Your task to perform on an android device: toggle translation in the chrome app Image 0: 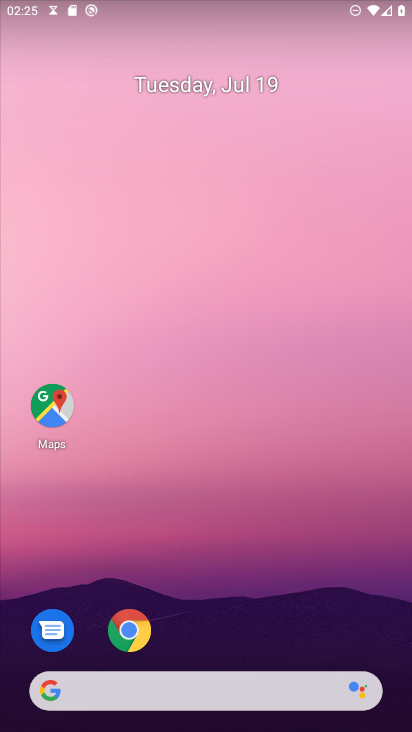
Step 0: press home button
Your task to perform on an android device: toggle translation in the chrome app Image 1: 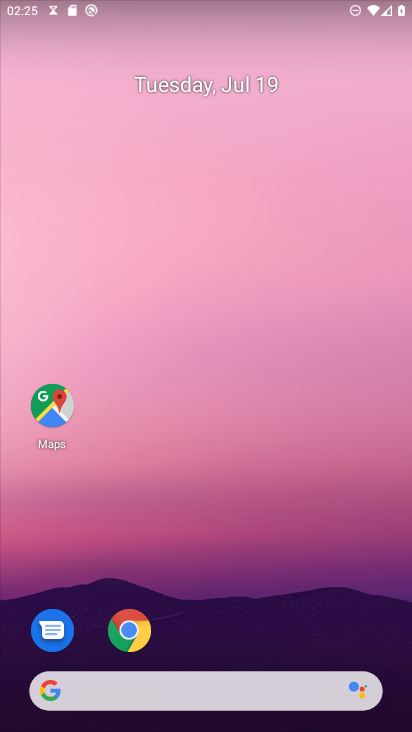
Step 1: click (130, 632)
Your task to perform on an android device: toggle translation in the chrome app Image 2: 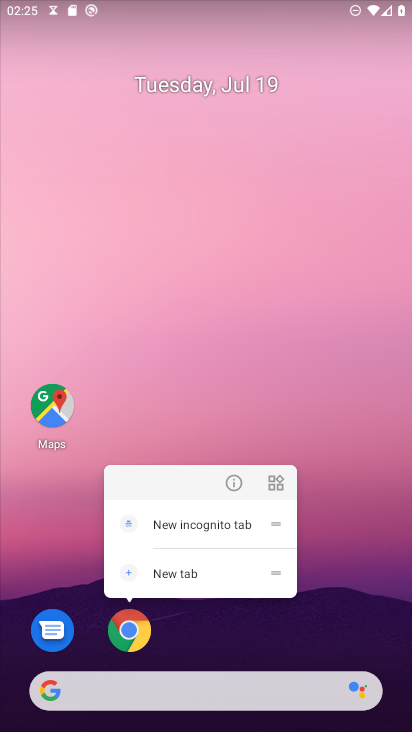
Step 2: click (132, 627)
Your task to perform on an android device: toggle translation in the chrome app Image 3: 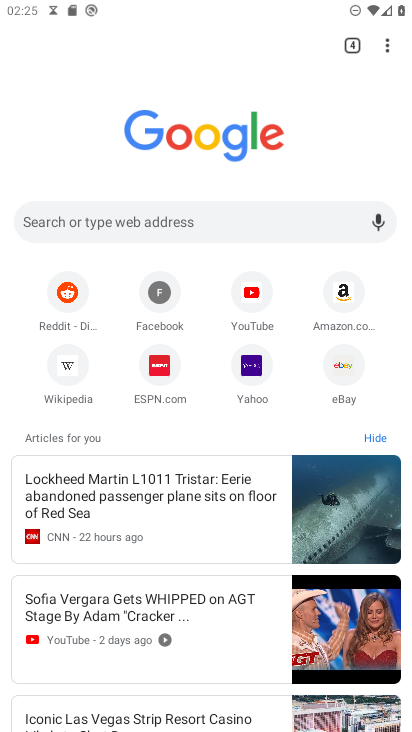
Step 3: drag from (393, 39) to (258, 373)
Your task to perform on an android device: toggle translation in the chrome app Image 4: 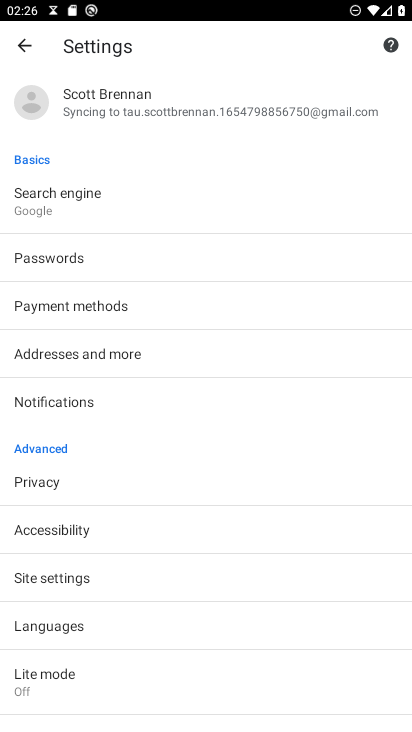
Step 4: click (96, 626)
Your task to perform on an android device: toggle translation in the chrome app Image 5: 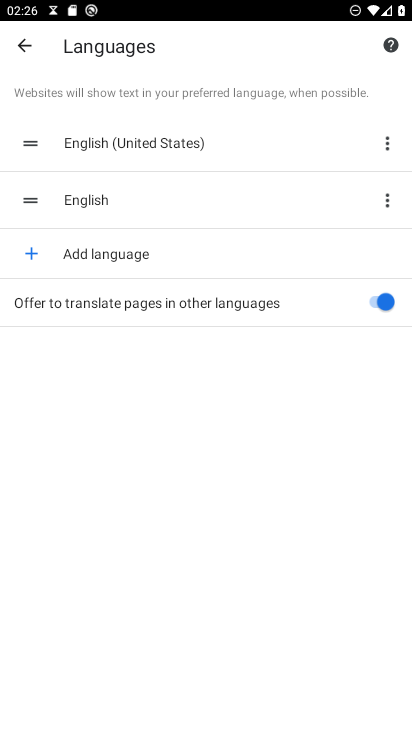
Step 5: click (376, 302)
Your task to perform on an android device: toggle translation in the chrome app Image 6: 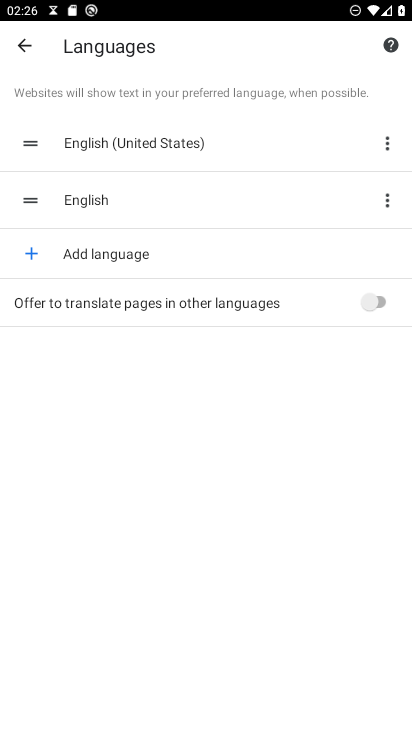
Step 6: task complete